Your task to perform on an android device: turn off javascript in the chrome app Image 0: 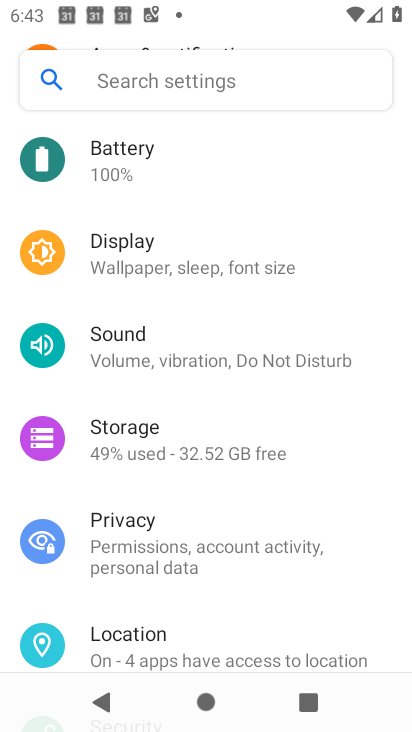
Step 0: press home button
Your task to perform on an android device: turn off javascript in the chrome app Image 1: 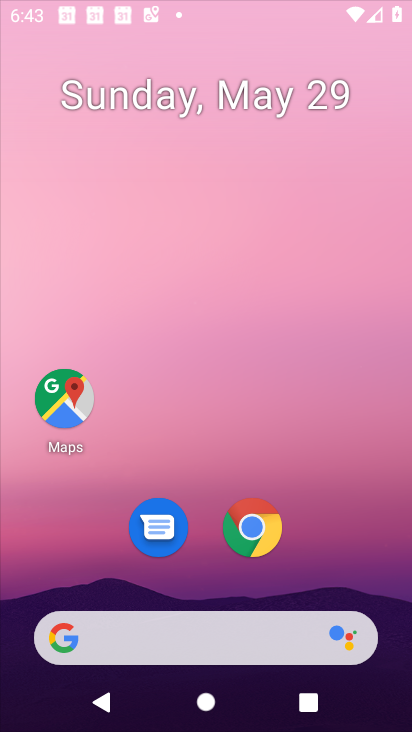
Step 1: drag from (361, 641) to (302, 79)
Your task to perform on an android device: turn off javascript in the chrome app Image 2: 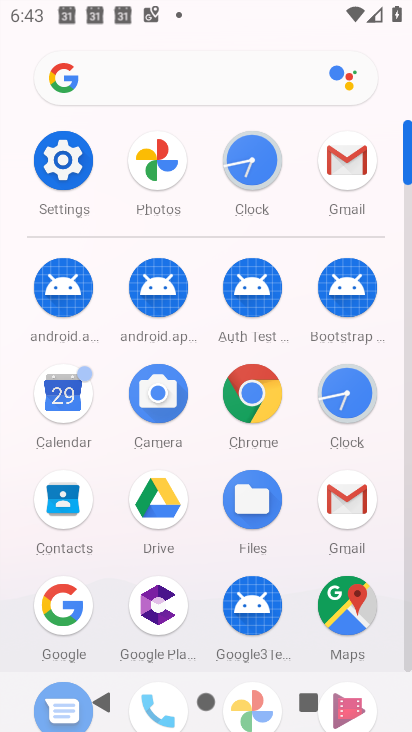
Step 2: click (257, 394)
Your task to perform on an android device: turn off javascript in the chrome app Image 3: 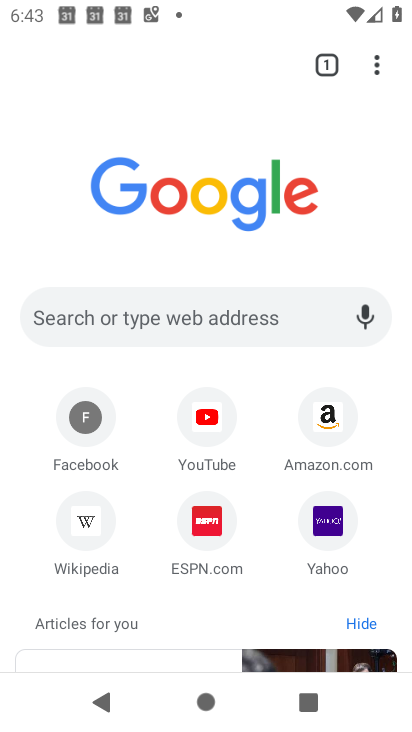
Step 3: click (381, 62)
Your task to perform on an android device: turn off javascript in the chrome app Image 4: 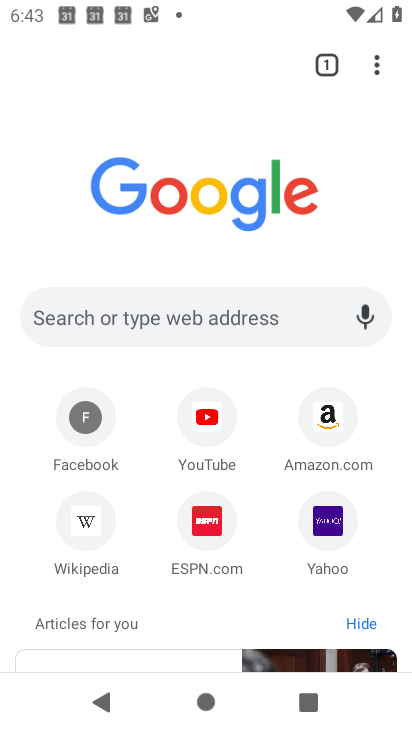
Step 4: click (374, 57)
Your task to perform on an android device: turn off javascript in the chrome app Image 5: 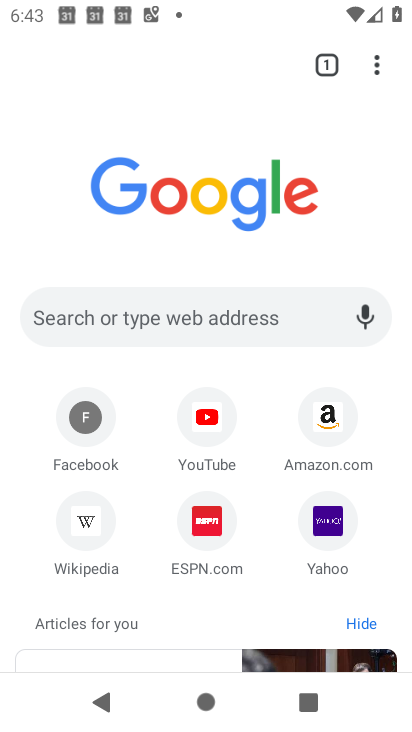
Step 5: click (379, 56)
Your task to perform on an android device: turn off javascript in the chrome app Image 6: 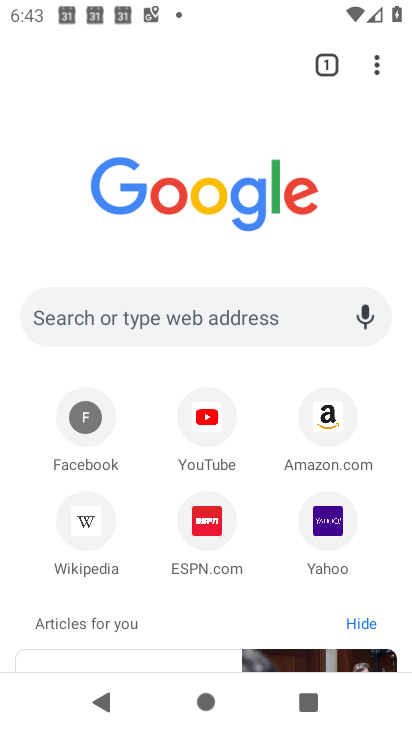
Step 6: click (379, 56)
Your task to perform on an android device: turn off javascript in the chrome app Image 7: 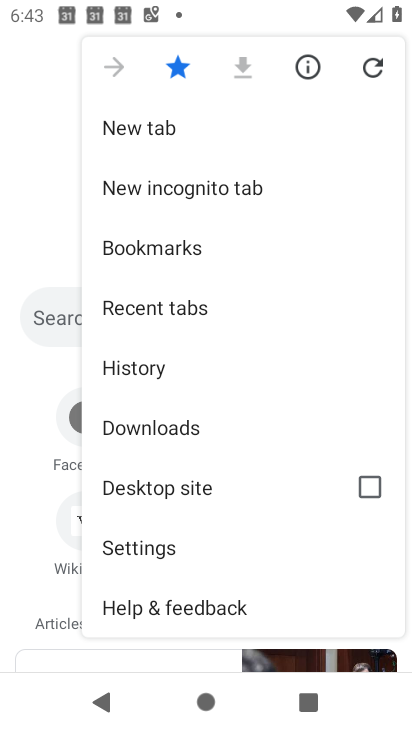
Step 7: click (181, 553)
Your task to perform on an android device: turn off javascript in the chrome app Image 8: 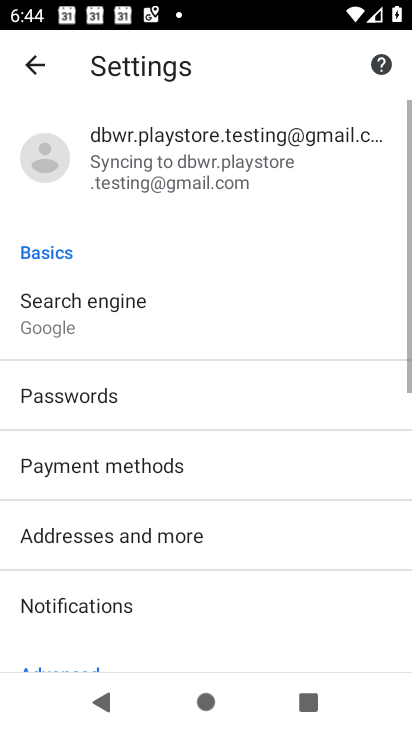
Step 8: drag from (104, 602) to (122, 151)
Your task to perform on an android device: turn off javascript in the chrome app Image 9: 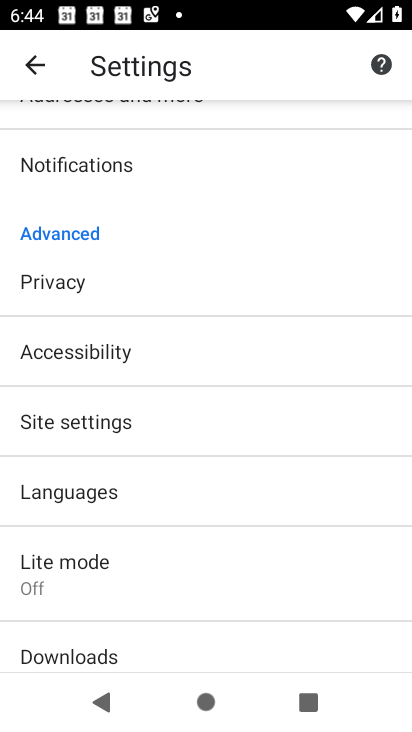
Step 9: click (124, 427)
Your task to perform on an android device: turn off javascript in the chrome app Image 10: 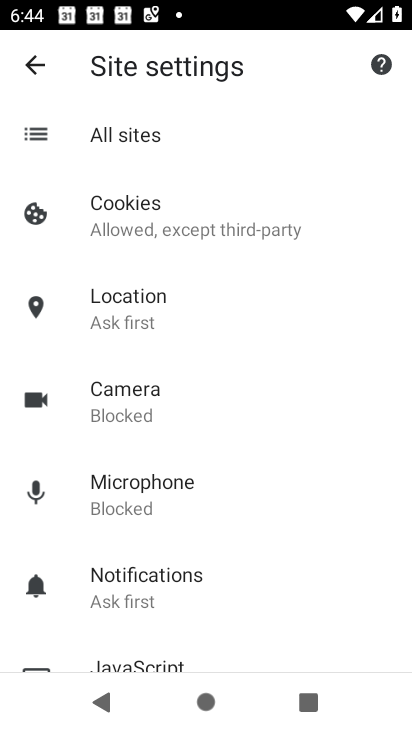
Step 10: click (171, 656)
Your task to perform on an android device: turn off javascript in the chrome app Image 11: 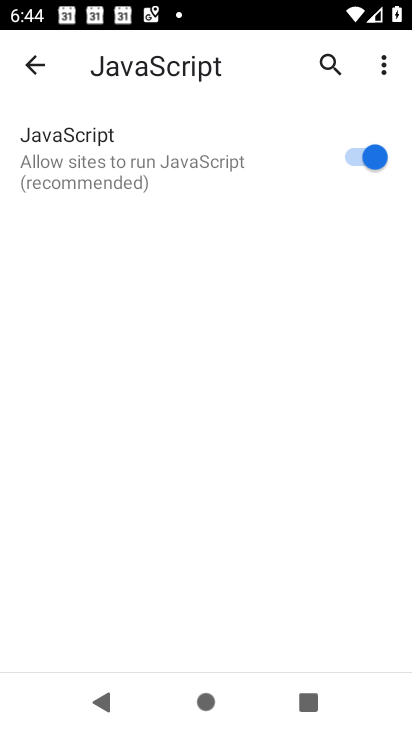
Step 11: click (328, 139)
Your task to perform on an android device: turn off javascript in the chrome app Image 12: 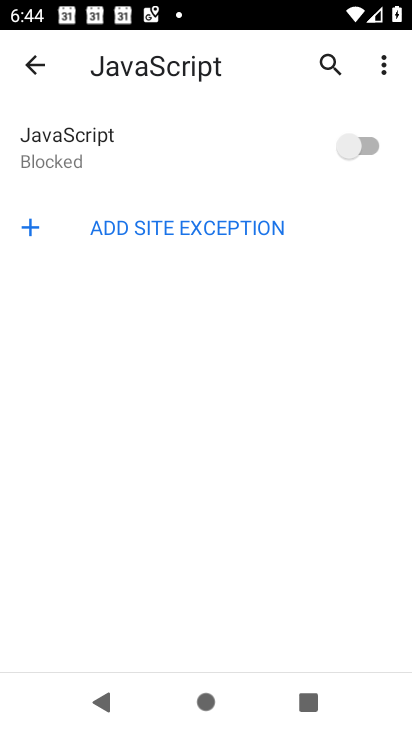
Step 12: task complete